Your task to perform on an android device: Search for sushi restaurants on Maps Image 0: 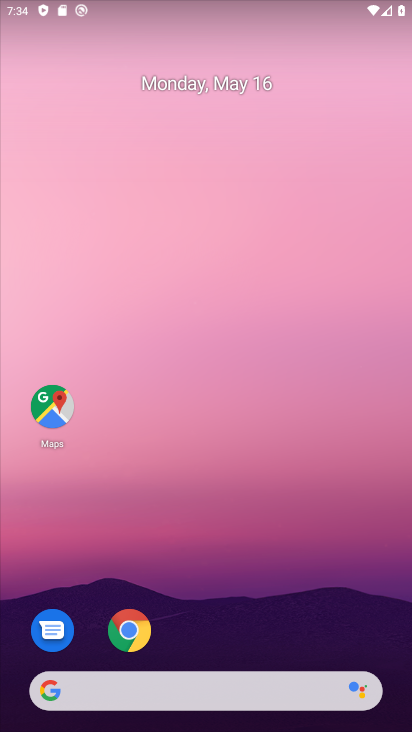
Step 0: drag from (281, 578) to (258, 266)
Your task to perform on an android device: Search for sushi restaurants on Maps Image 1: 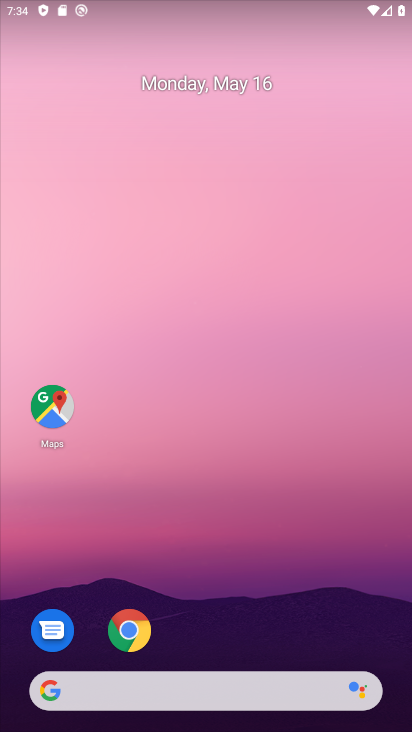
Step 1: click (40, 402)
Your task to perform on an android device: Search for sushi restaurants on Maps Image 2: 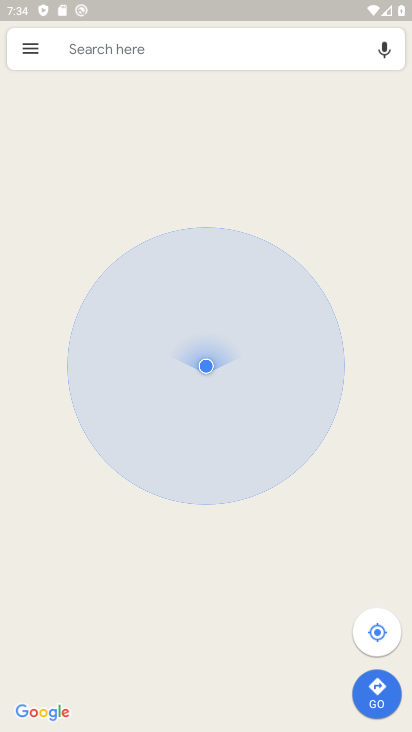
Step 2: click (150, 46)
Your task to perform on an android device: Search for sushi restaurants on Maps Image 3: 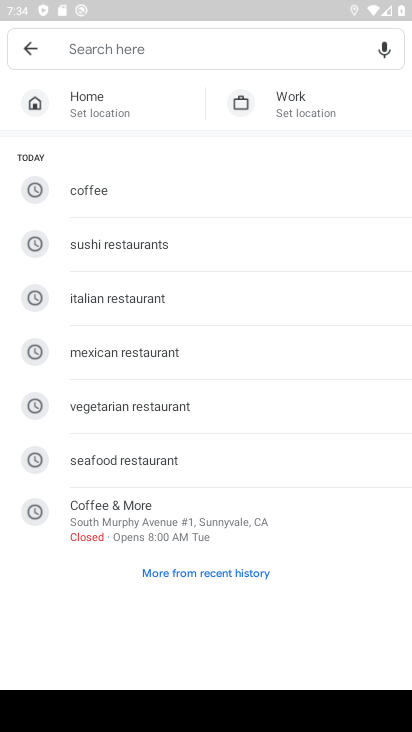
Step 3: click (113, 238)
Your task to perform on an android device: Search for sushi restaurants on Maps Image 4: 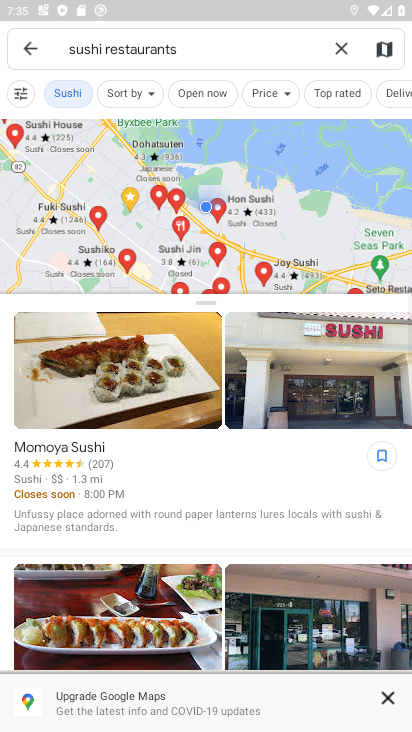
Step 4: task complete